Your task to perform on an android device: turn on wifi Image 0: 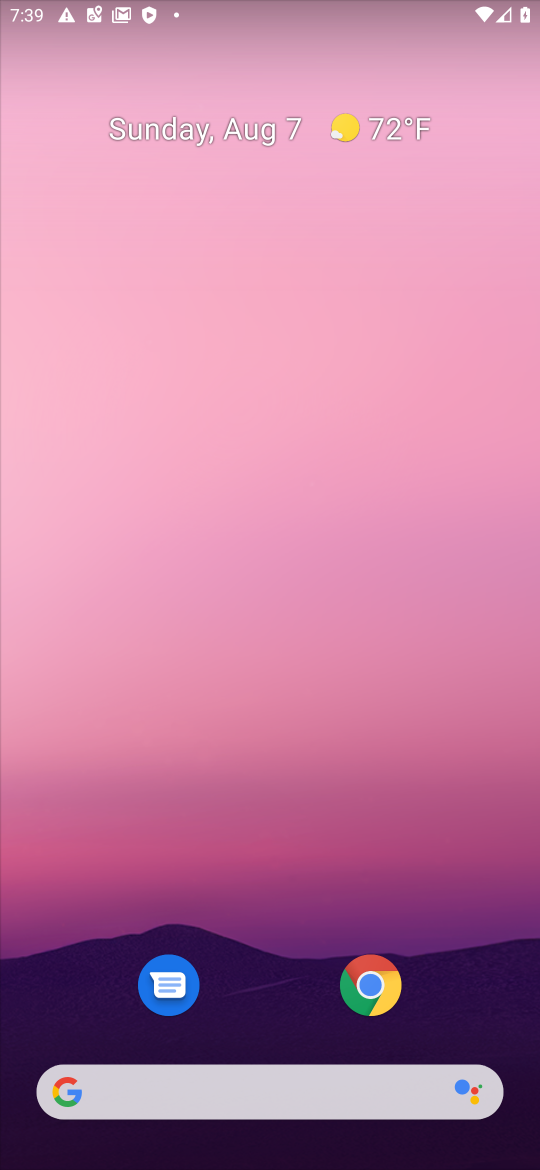
Step 0: drag from (127, 980) to (240, 279)
Your task to perform on an android device: turn on wifi Image 1: 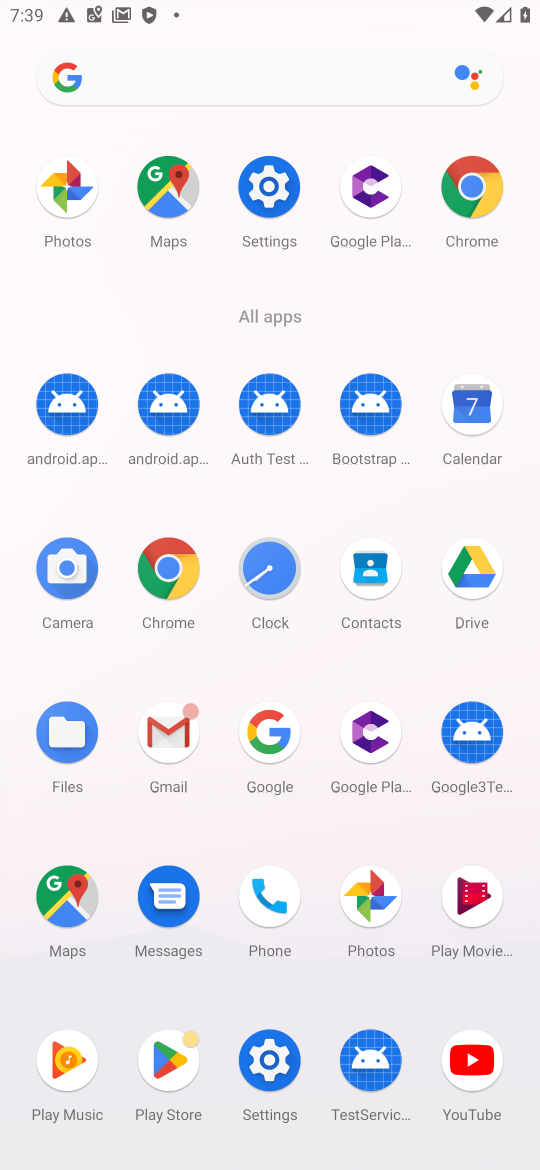
Step 1: click (283, 167)
Your task to perform on an android device: turn on wifi Image 2: 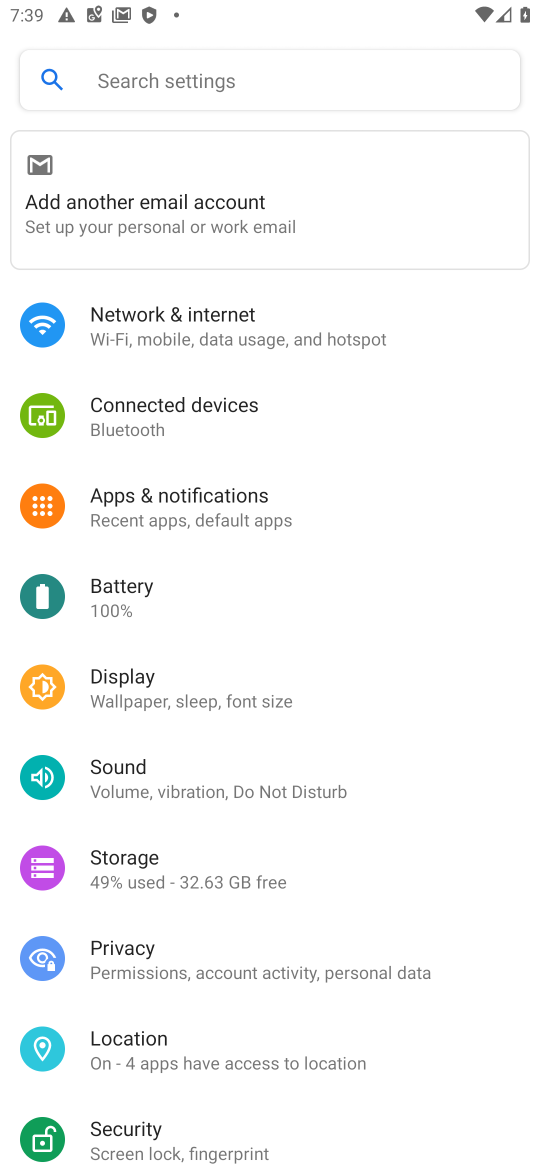
Step 2: click (218, 308)
Your task to perform on an android device: turn on wifi Image 3: 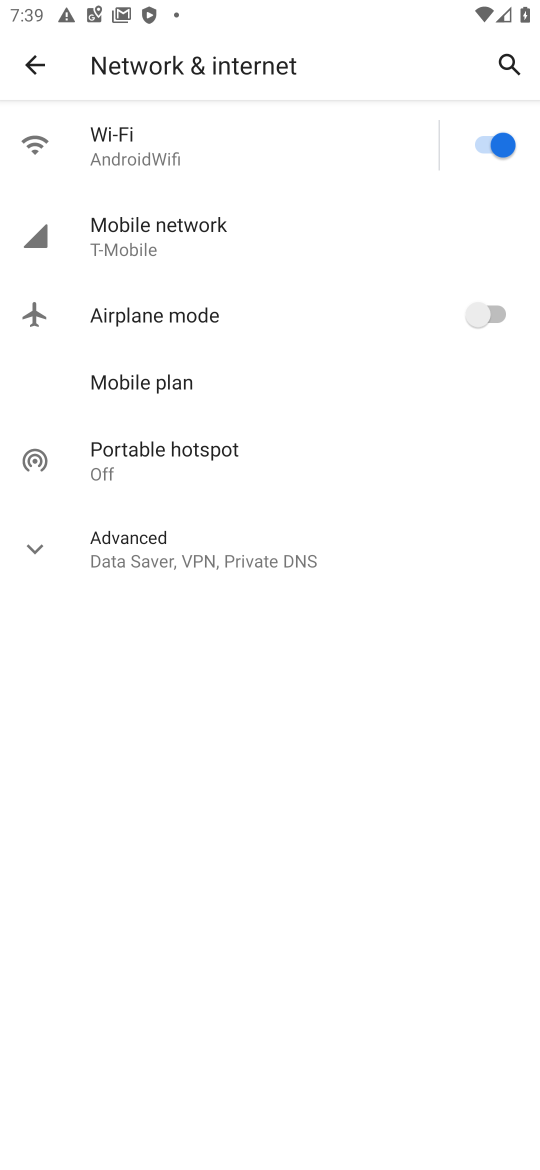
Step 3: click (329, 148)
Your task to perform on an android device: turn on wifi Image 4: 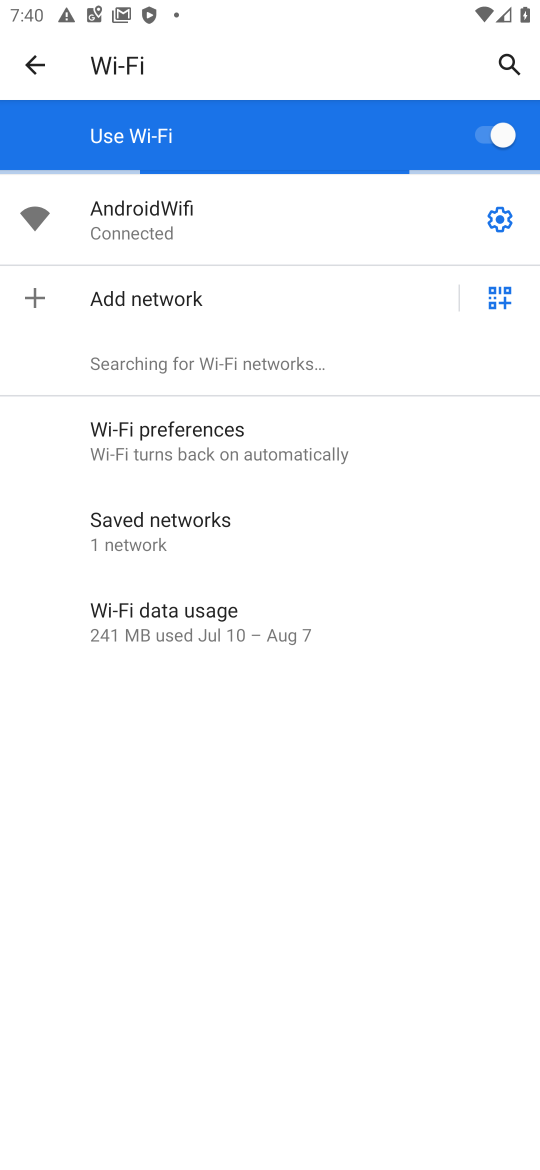
Step 4: task complete